Your task to perform on an android device: toggle airplane mode Image 0: 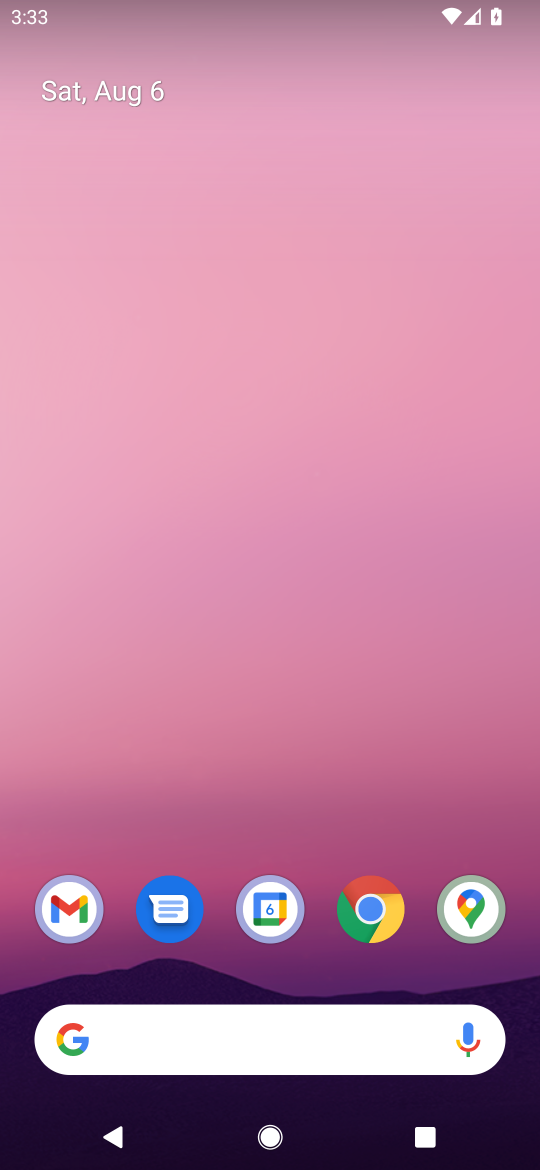
Step 0: drag from (468, 48) to (336, 841)
Your task to perform on an android device: toggle airplane mode Image 1: 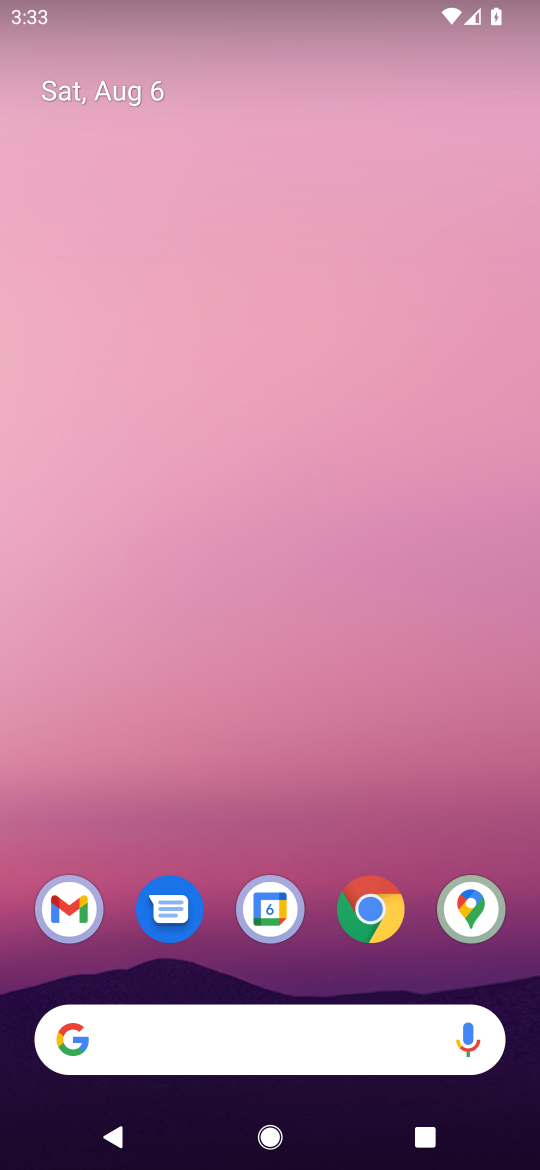
Step 1: drag from (486, 3) to (280, 943)
Your task to perform on an android device: toggle airplane mode Image 2: 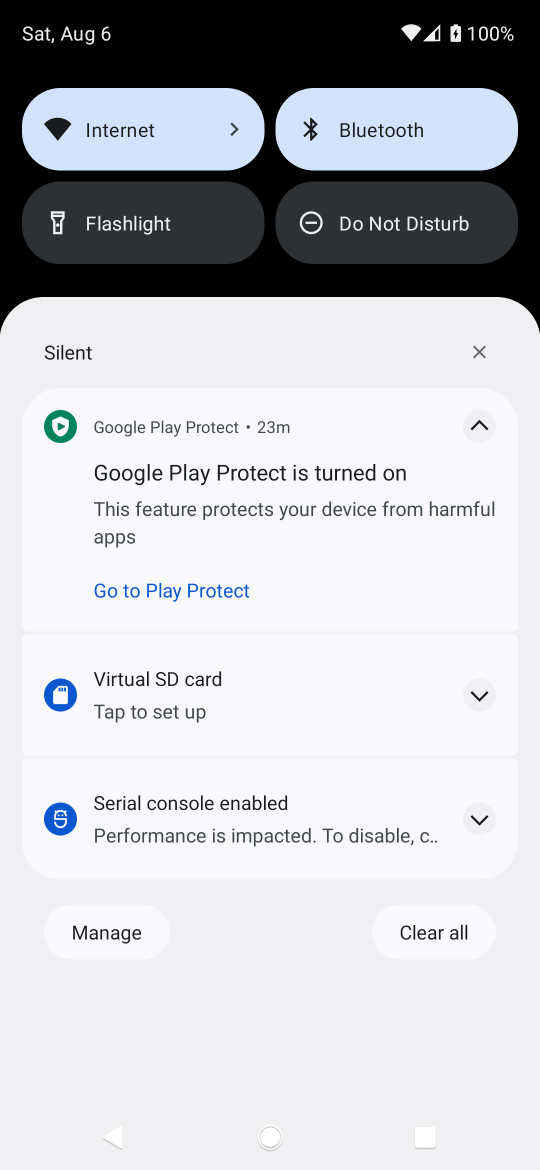
Step 2: drag from (261, 325) to (257, 1094)
Your task to perform on an android device: toggle airplane mode Image 3: 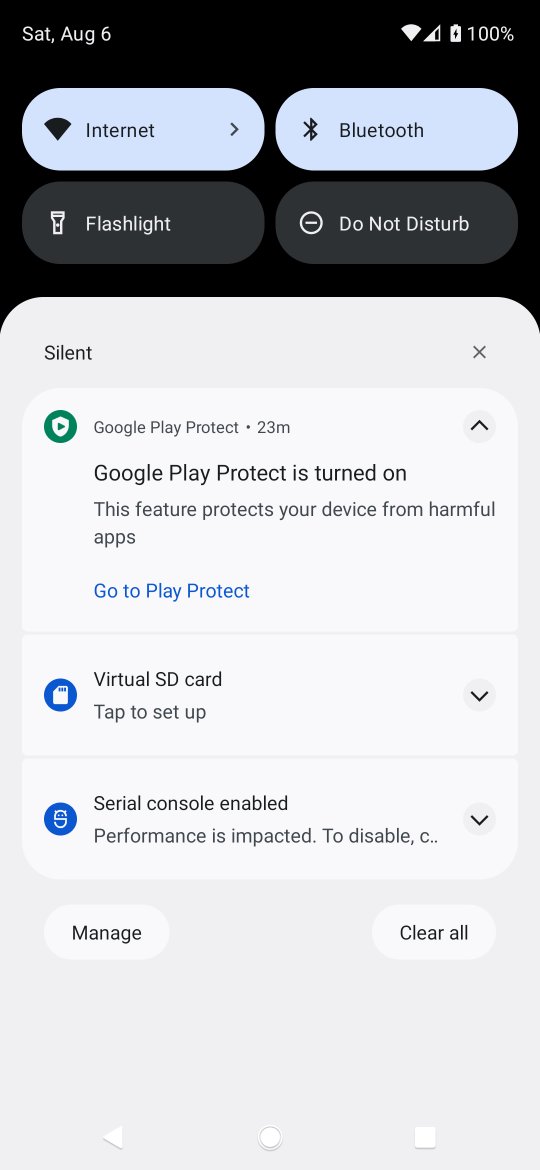
Step 3: drag from (261, 255) to (251, 1160)
Your task to perform on an android device: toggle airplane mode Image 4: 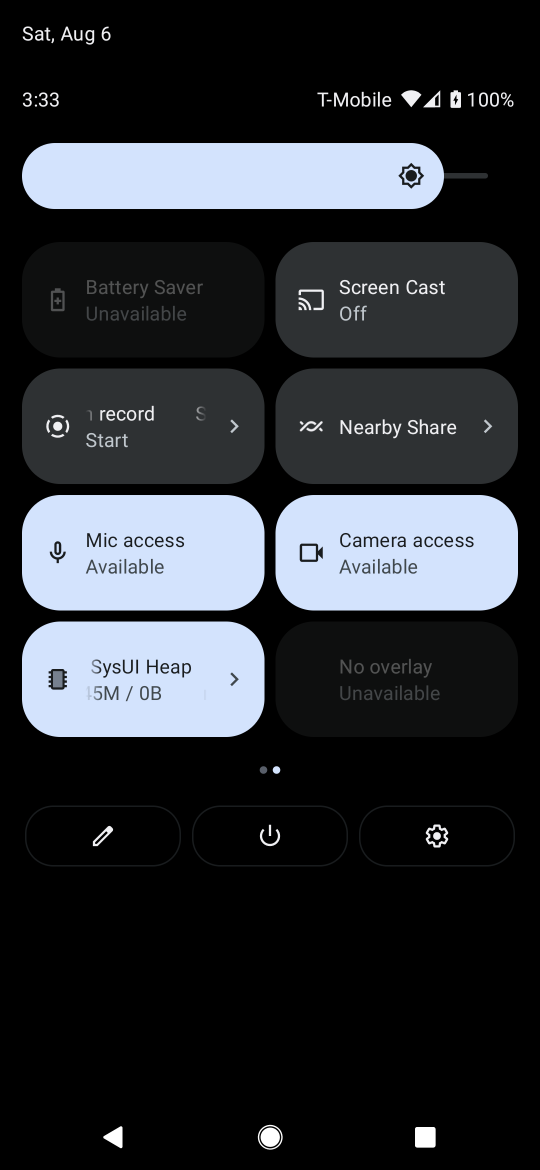
Step 4: drag from (19, 508) to (493, 523)
Your task to perform on an android device: toggle airplane mode Image 5: 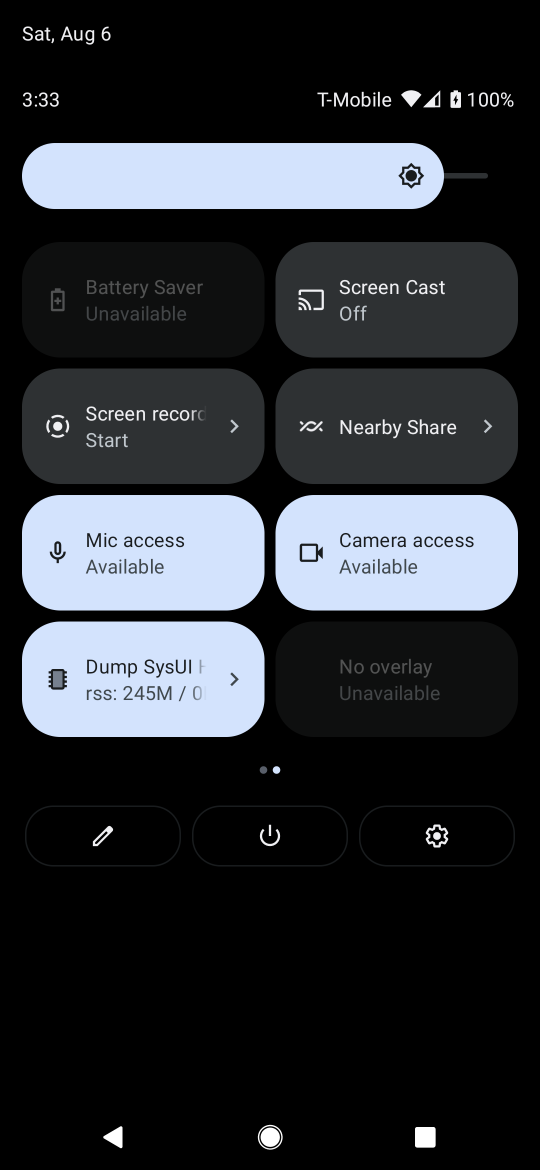
Step 5: drag from (22, 468) to (520, 483)
Your task to perform on an android device: toggle airplane mode Image 6: 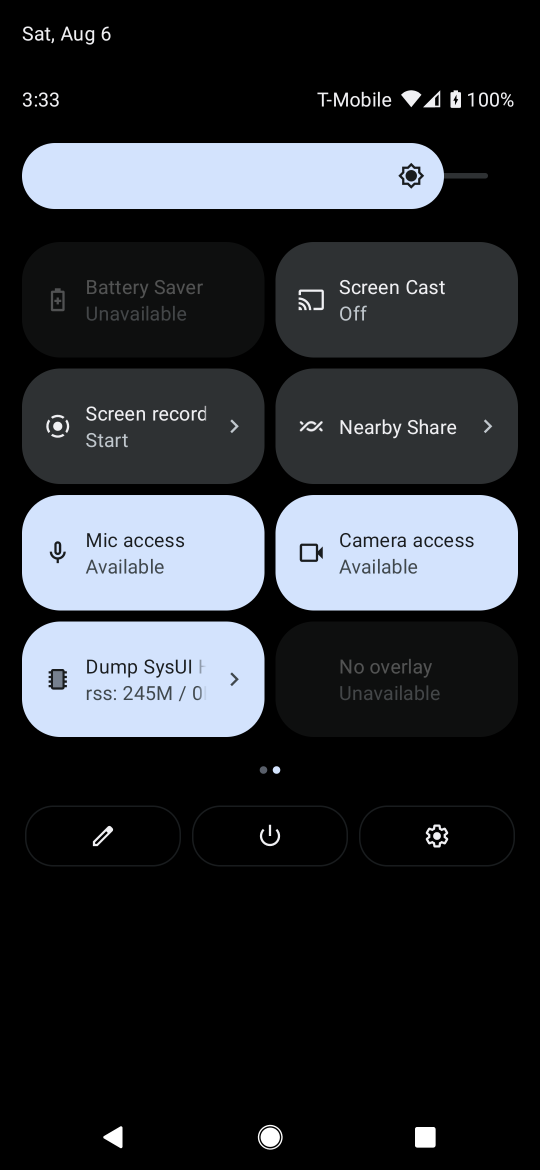
Step 6: drag from (50, 357) to (530, 379)
Your task to perform on an android device: toggle airplane mode Image 7: 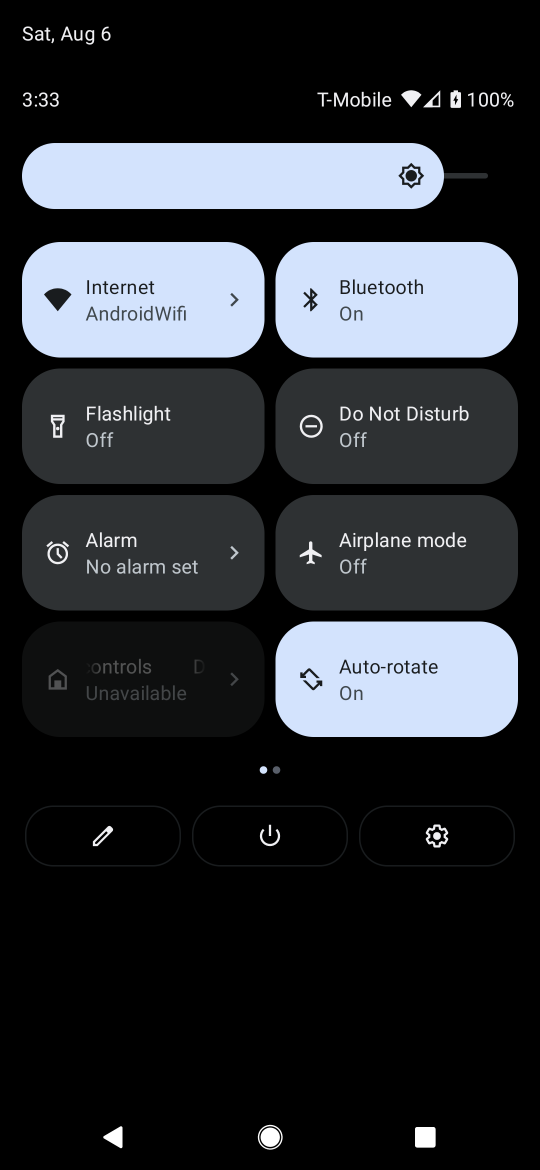
Step 7: click (391, 548)
Your task to perform on an android device: toggle airplane mode Image 8: 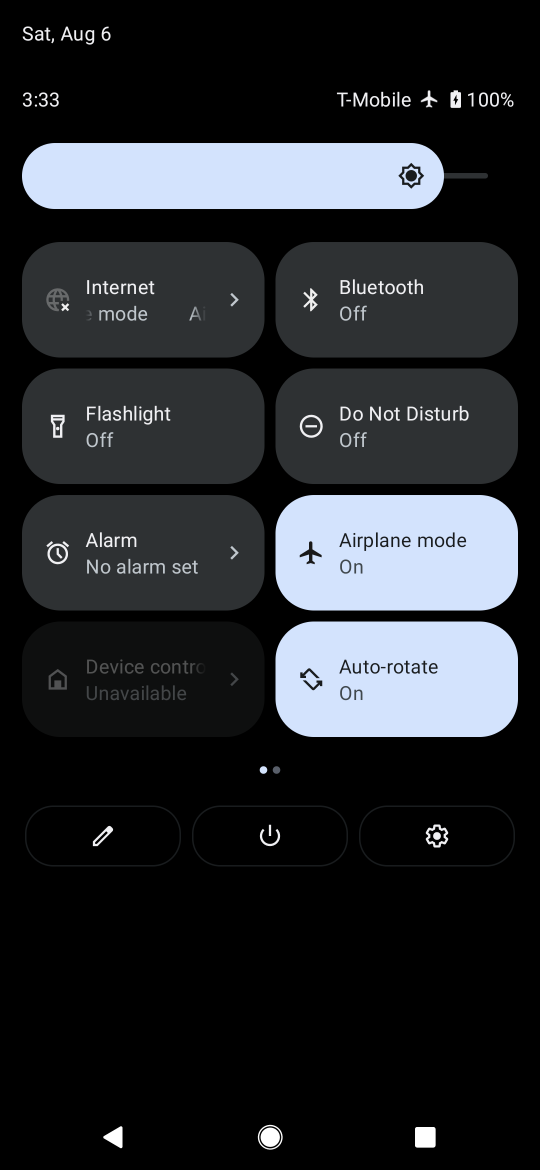
Step 8: task complete